Your task to perform on an android device: Open privacy settings Image 0: 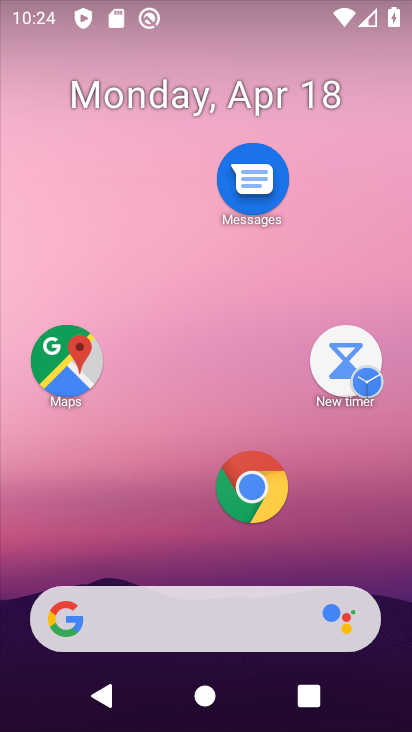
Step 0: drag from (115, 585) to (318, 126)
Your task to perform on an android device: Open privacy settings Image 1: 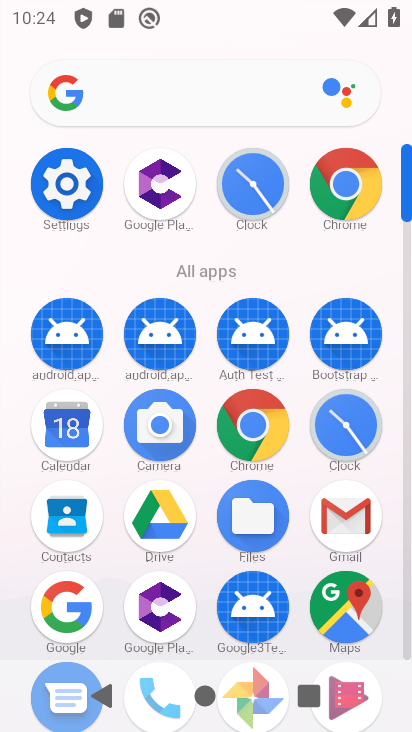
Step 1: click (248, 422)
Your task to perform on an android device: Open privacy settings Image 2: 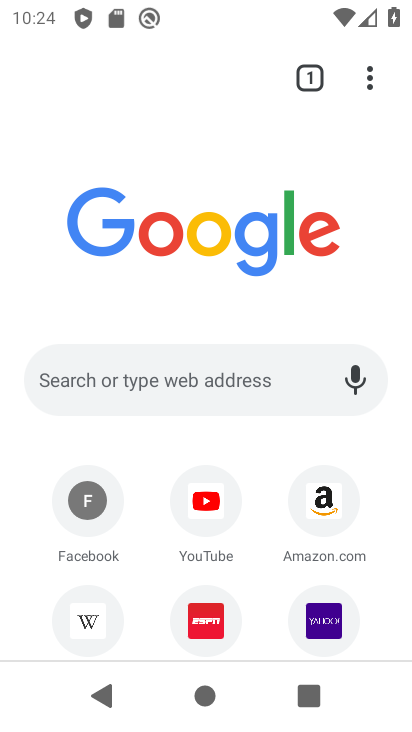
Step 2: click (366, 83)
Your task to perform on an android device: Open privacy settings Image 3: 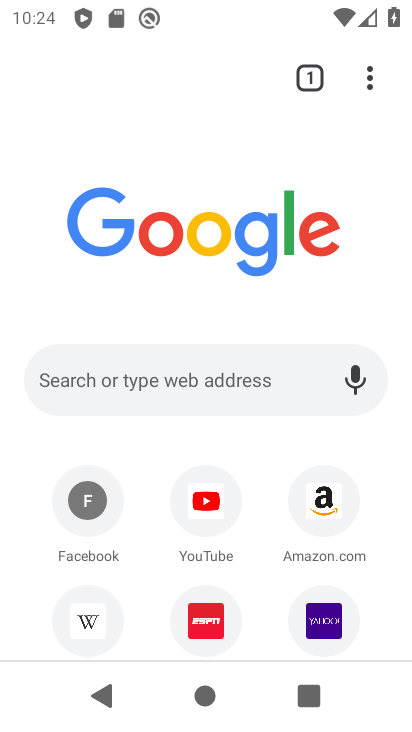
Step 3: drag from (366, 83) to (182, 541)
Your task to perform on an android device: Open privacy settings Image 4: 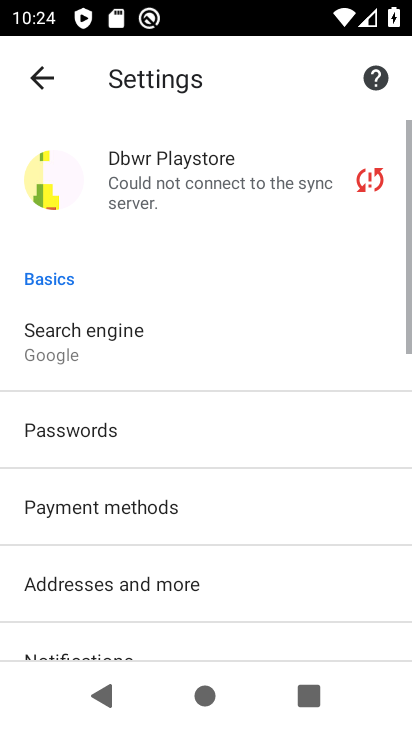
Step 4: drag from (197, 619) to (297, 295)
Your task to perform on an android device: Open privacy settings Image 5: 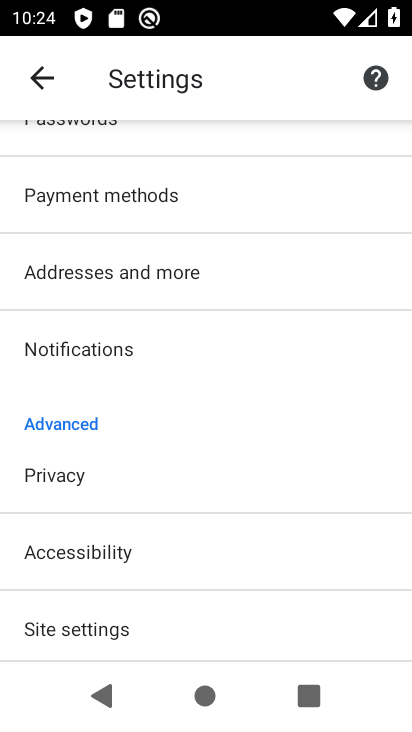
Step 5: click (105, 495)
Your task to perform on an android device: Open privacy settings Image 6: 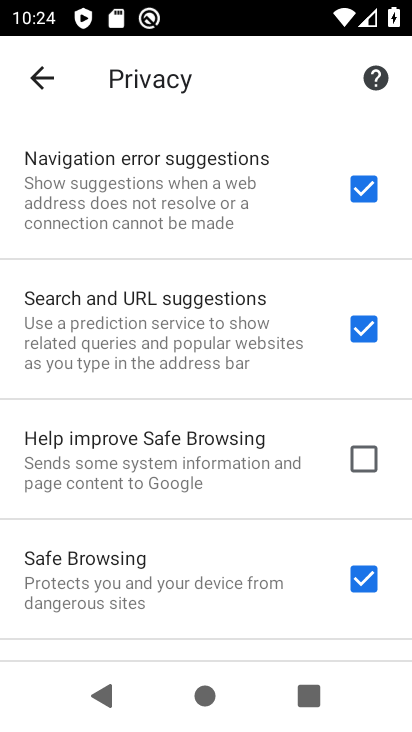
Step 6: task complete